Your task to perform on an android device: open chrome and create a bookmark for the current page Image 0: 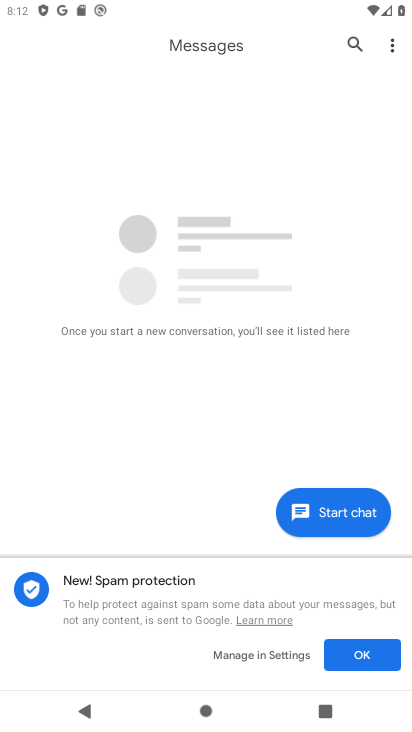
Step 0: press home button
Your task to perform on an android device: open chrome and create a bookmark for the current page Image 1: 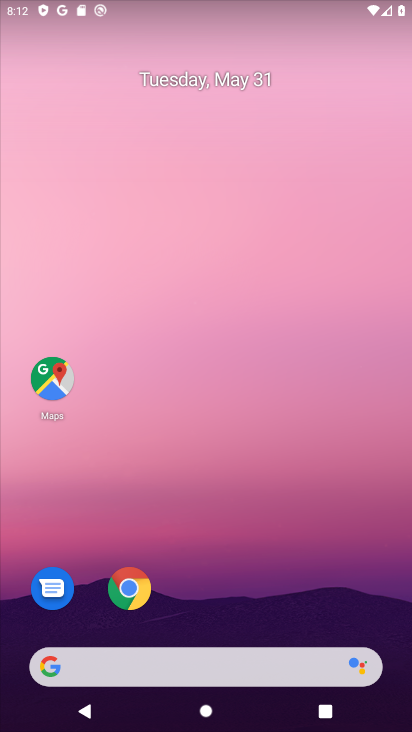
Step 1: click (138, 578)
Your task to perform on an android device: open chrome and create a bookmark for the current page Image 2: 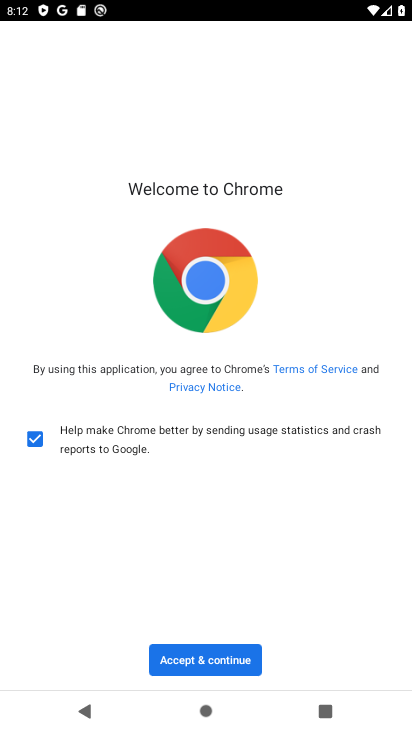
Step 2: click (214, 653)
Your task to perform on an android device: open chrome and create a bookmark for the current page Image 3: 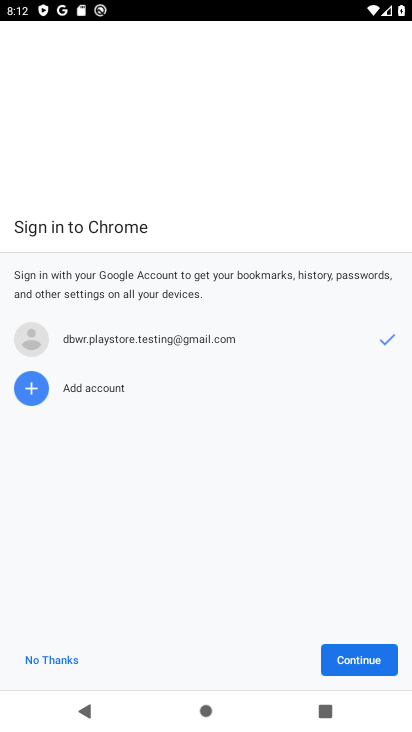
Step 3: click (342, 667)
Your task to perform on an android device: open chrome and create a bookmark for the current page Image 4: 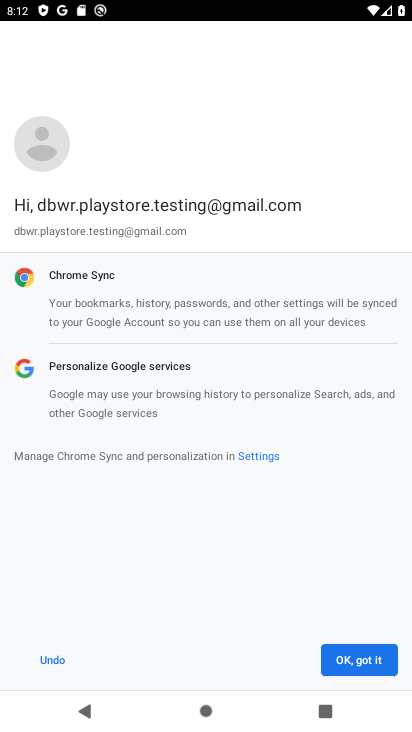
Step 4: click (342, 667)
Your task to perform on an android device: open chrome and create a bookmark for the current page Image 5: 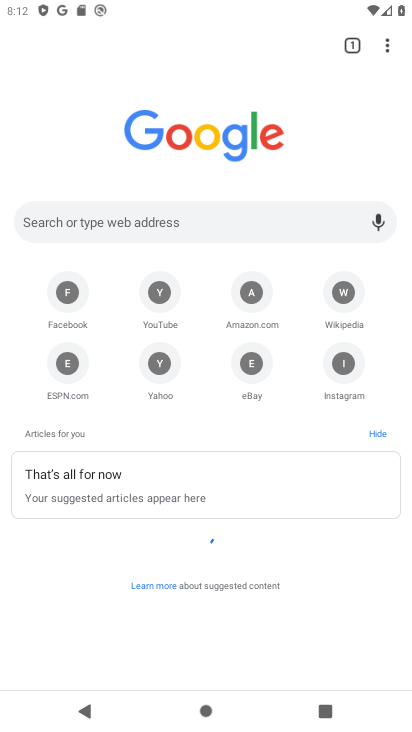
Step 5: click (383, 47)
Your task to perform on an android device: open chrome and create a bookmark for the current page Image 6: 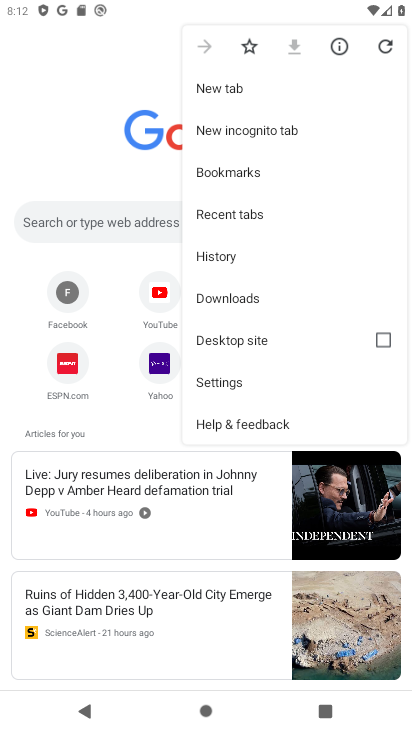
Step 6: click (257, 46)
Your task to perform on an android device: open chrome and create a bookmark for the current page Image 7: 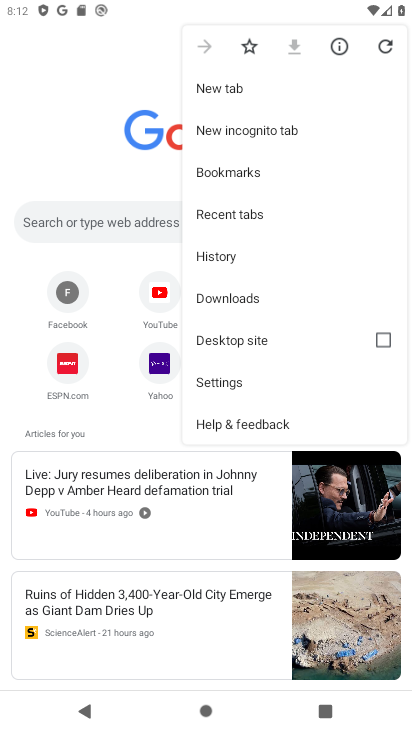
Step 7: task complete